Your task to perform on an android device: open chrome and create a bookmark for the current page Image 0: 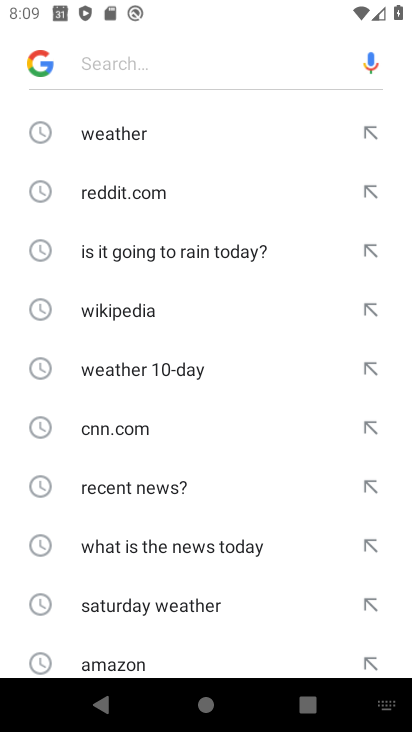
Step 0: press back button
Your task to perform on an android device: open chrome and create a bookmark for the current page Image 1: 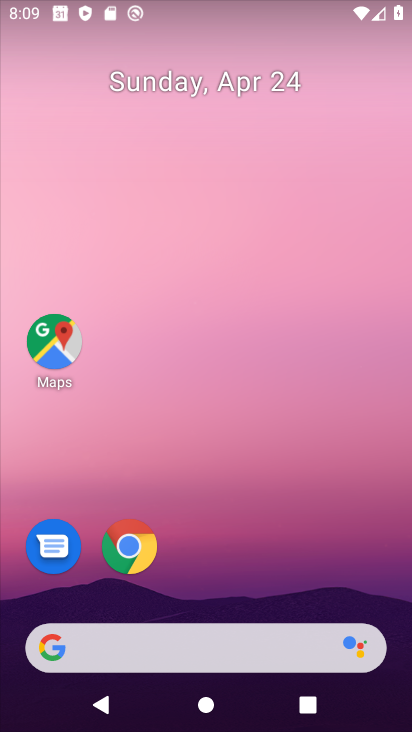
Step 1: click (121, 550)
Your task to perform on an android device: open chrome and create a bookmark for the current page Image 2: 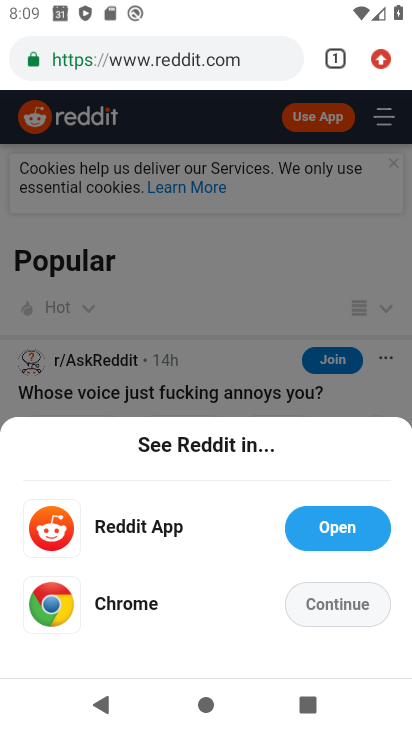
Step 2: click (377, 67)
Your task to perform on an android device: open chrome and create a bookmark for the current page Image 3: 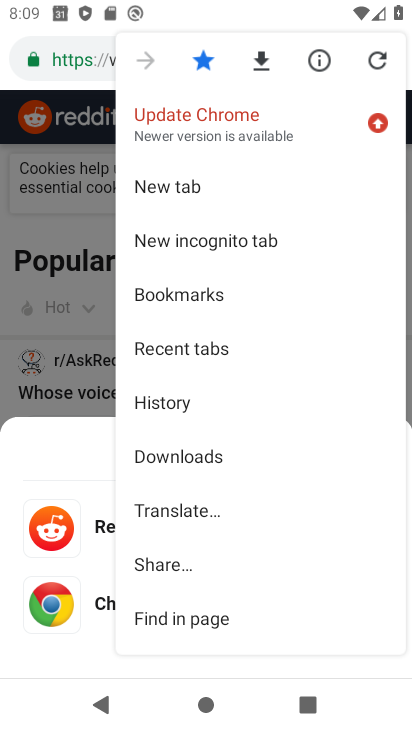
Step 3: task complete